Your task to perform on an android device: Go to accessibility settings Image 0: 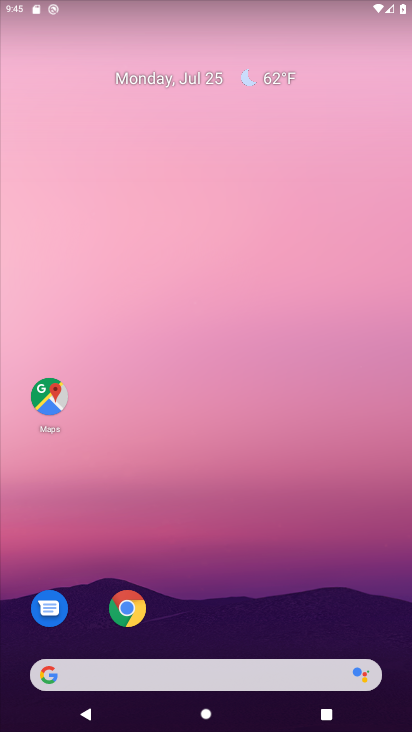
Step 0: drag from (224, 629) to (400, 98)
Your task to perform on an android device: Go to accessibility settings Image 1: 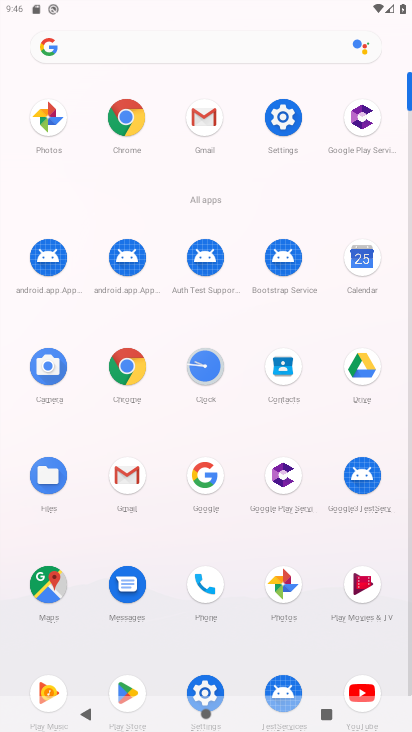
Step 1: click (286, 112)
Your task to perform on an android device: Go to accessibility settings Image 2: 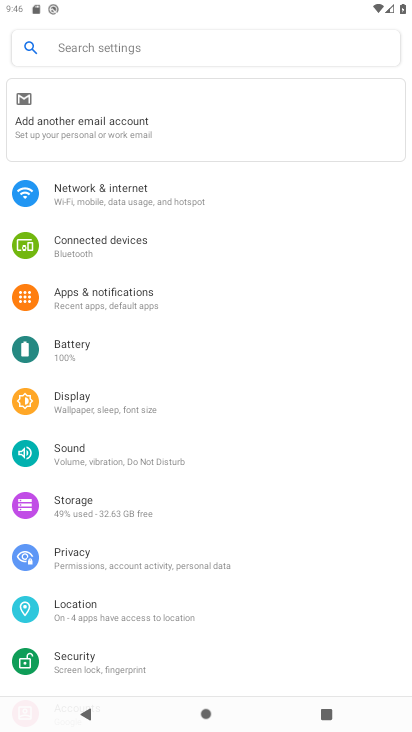
Step 2: drag from (183, 643) to (169, 22)
Your task to perform on an android device: Go to accessibility settings Image 3: 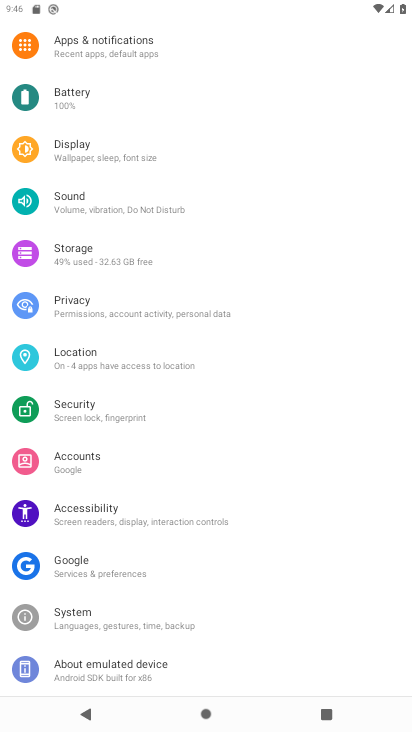
Step 3: click (121, 510)
Your task to perform on an android device: Go to accessibility settings Image 4: 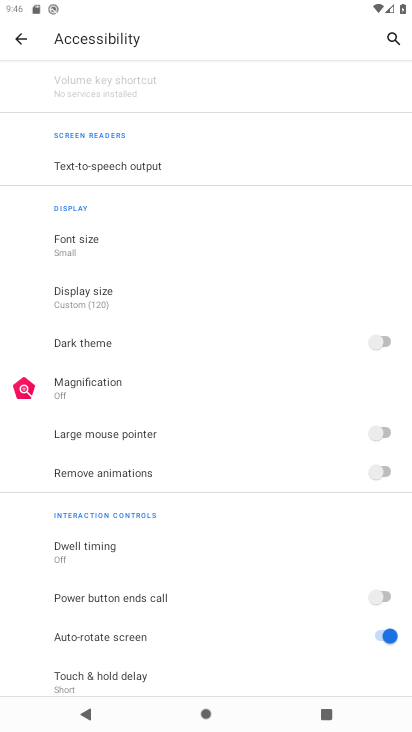
Step 4: task complete